Your task to perform on an android device: Search for hotels in Chicago Image 0: 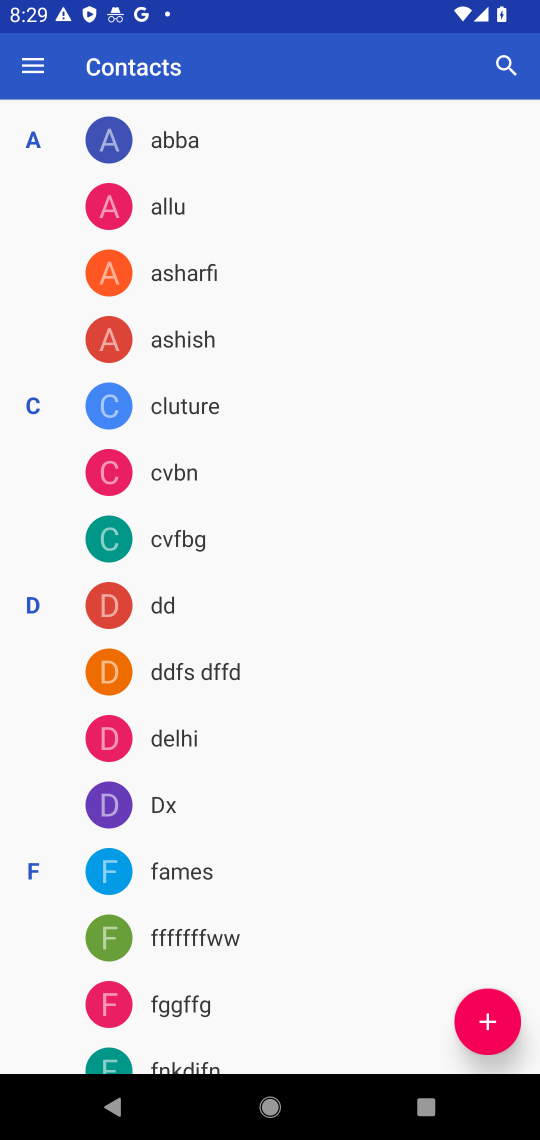
Step 0: press home button
Your task to perform on an android device: Search for hotels in Chicago Image 1: 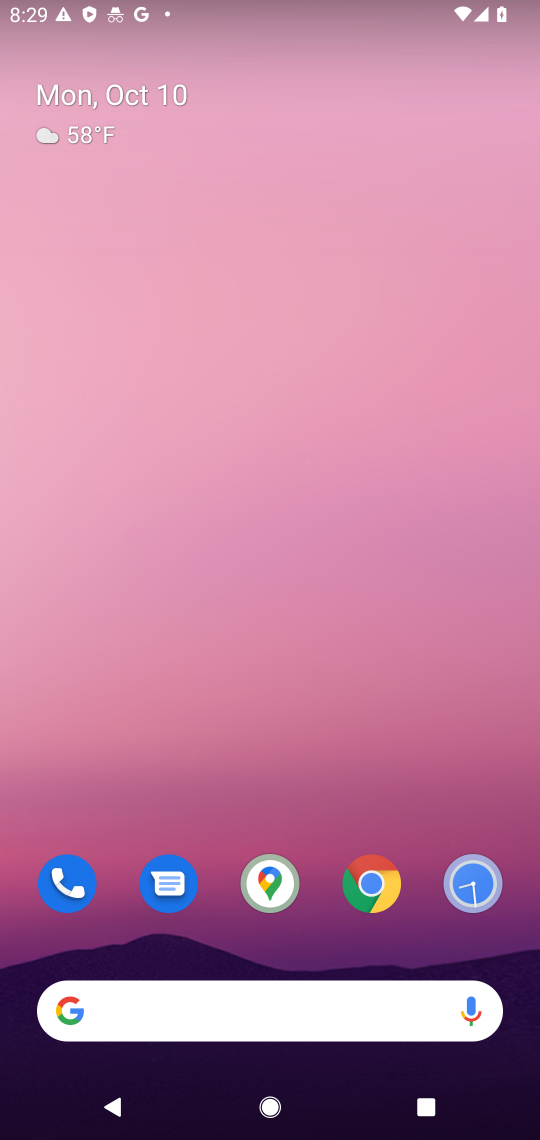
Step 1: click (407, 352)
Your task to perform on an android device: Search for hotels in Chicago Image 2: 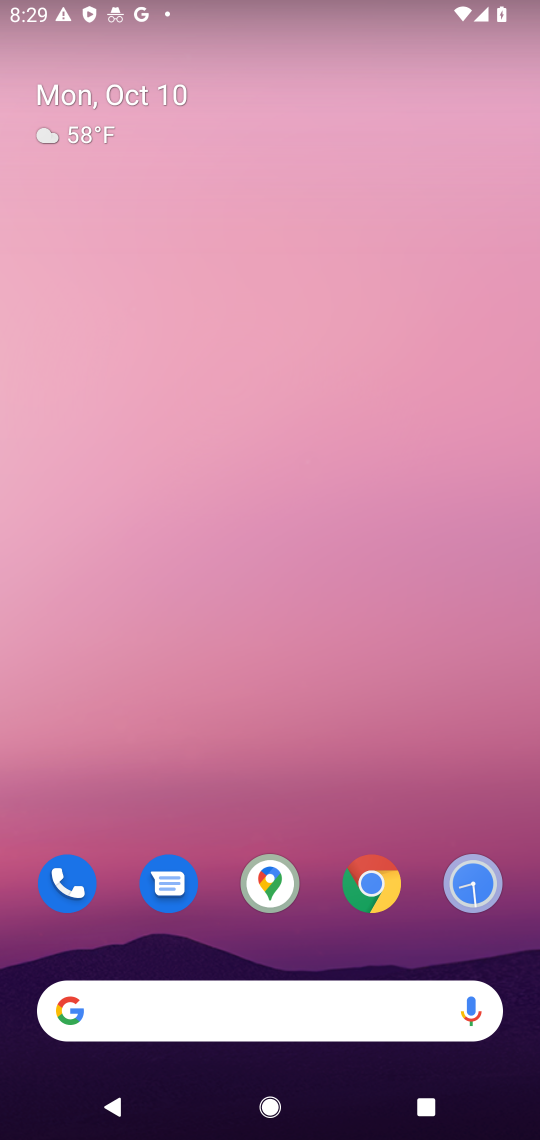
Step 2: drag from (352, 846) to (361, 260)
Your task to perform on an android device: Search for hotels in Chicago Image 3: 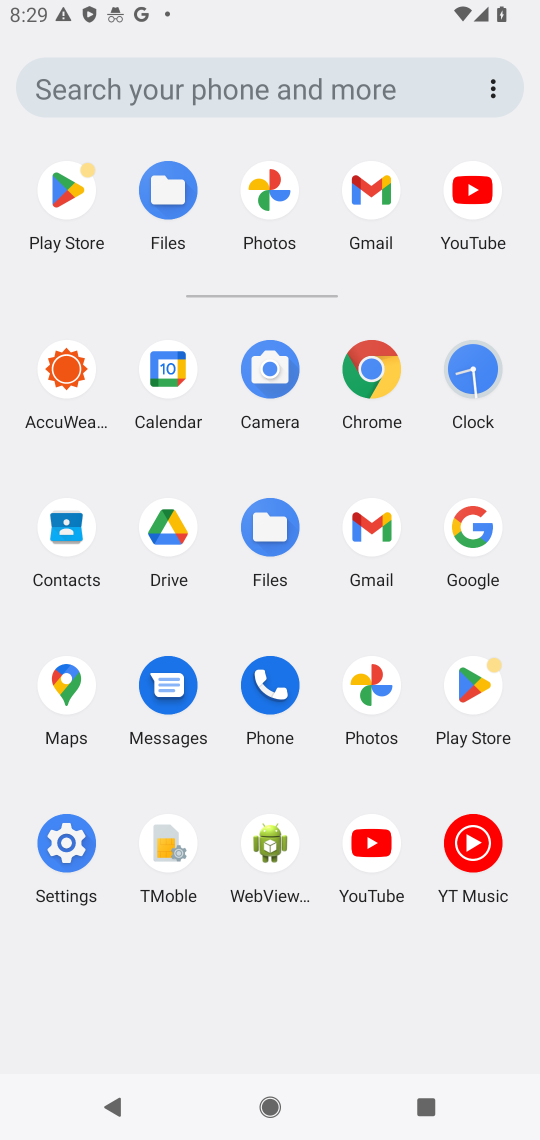
Step 3: click (454, 572)
Your task to perform on an android device: Search for hotels in Chicago Image 4: 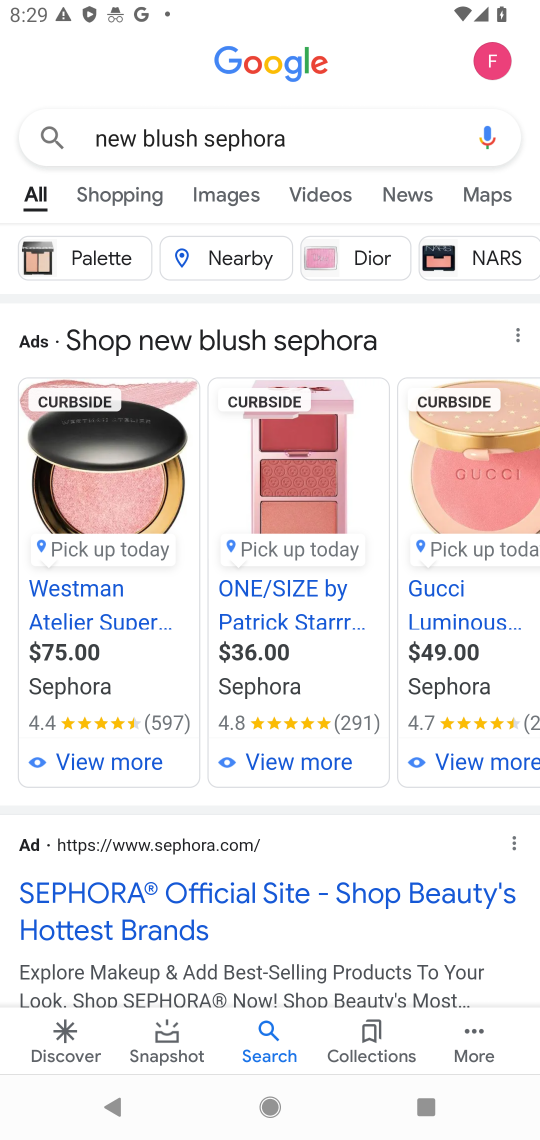
Step 4: click (401, 134)
Your task to perform on an android device: Search for hotels in Chicago Image 5: 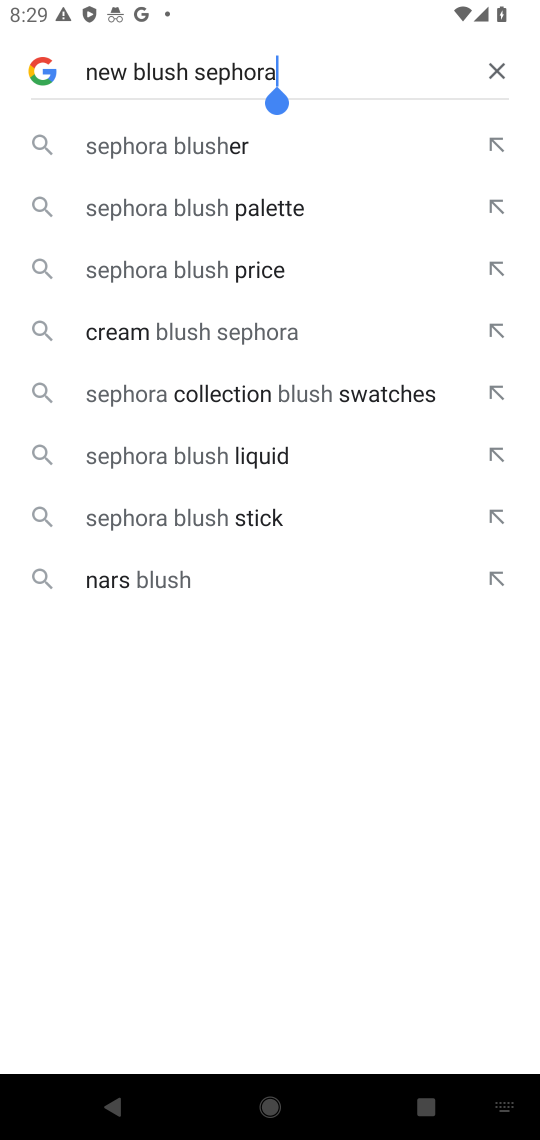
Step 5: click (504, 64)
Your task to perform on an android device: Search for hotels in Chicago Image 6: 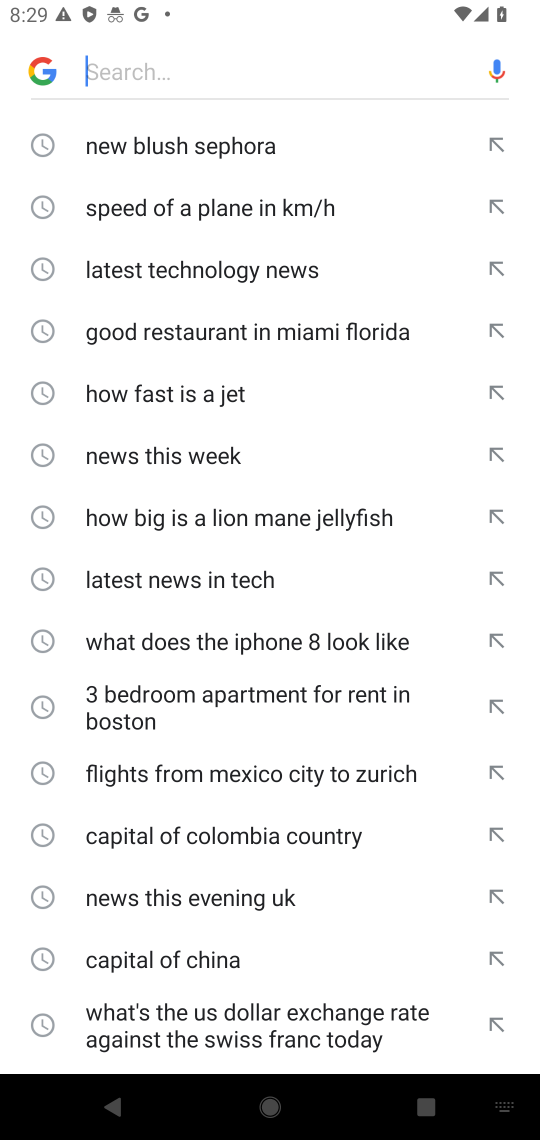
Step 6: type "hotels in Chicago"
Your task to perform on an android device: Search for hotels in Chicago Image 7: 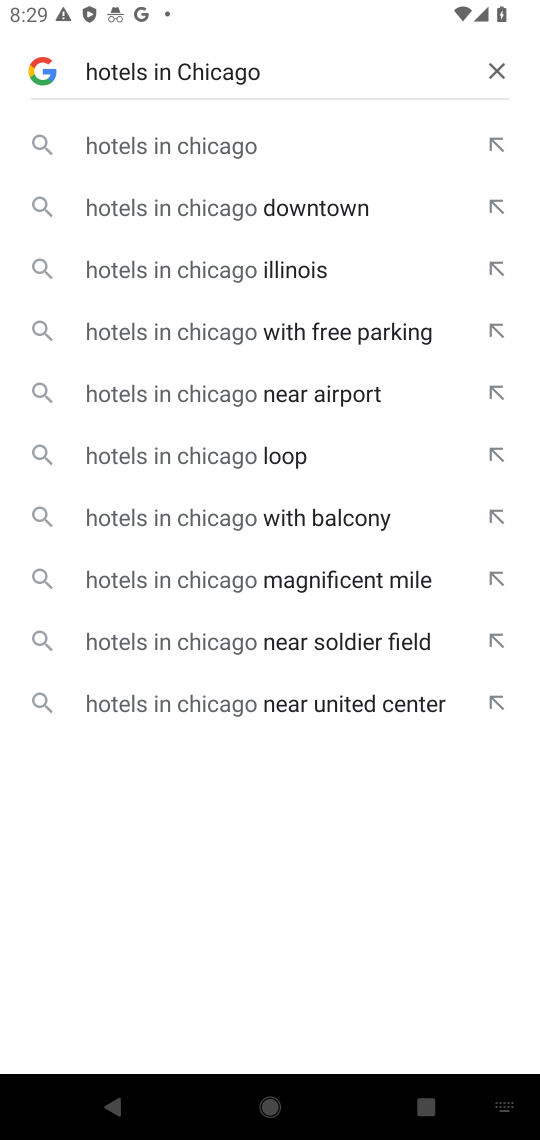
Step 7: click (316, 140)
Your task to perform on an android device: Search for hotels in Chicago Image 8: 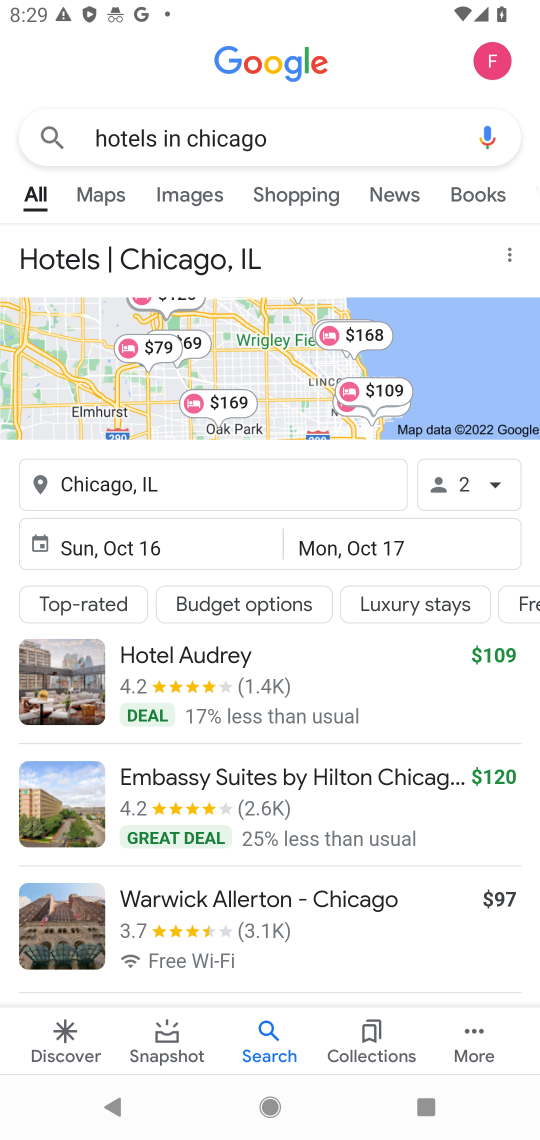
Step 8: task complete